Your task to perform on an android device: Open location settings Image 0: 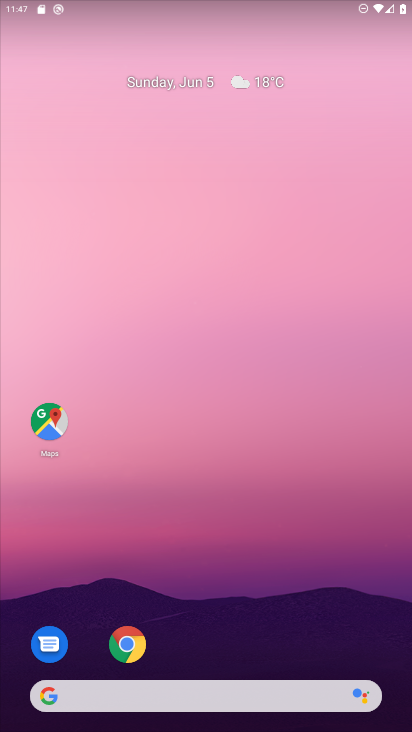
Step 0: drag from (234, 702) to (205, 246)
Your task to perform on an android device: Open location settings Image 1: 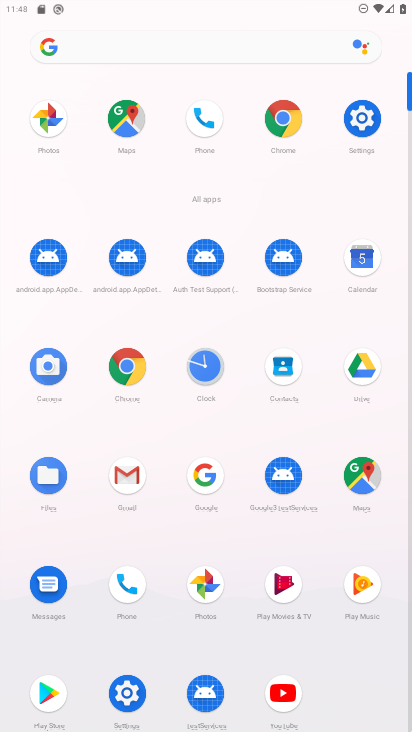
Step 1: click (373, 109)
Your task to perform on an android device: Open location settings Image 2: 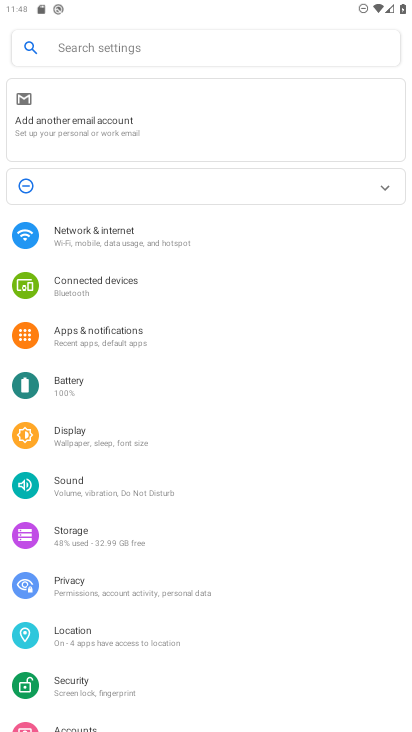
Step 2: click (76, 39)
Your task to perform on an android device: Open location settings Image 3: 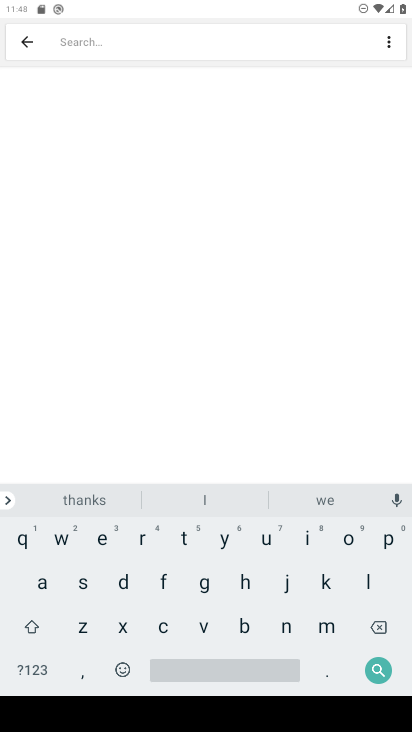
Step 3: click (25, 37)
Your task to perform on an android device: Open location settings Image 4: 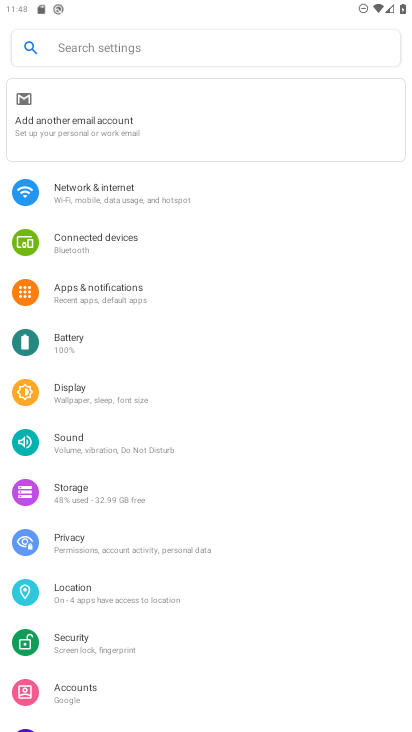
Step 4: click (109, 590)
Your task to perform on an android device: Open location settings Image 5: 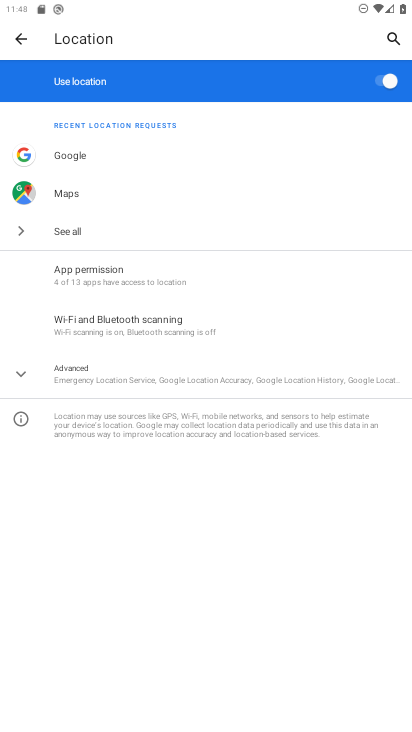
Step 5: task complete